Your task to perform on an android device: Go to display settings Image 0: 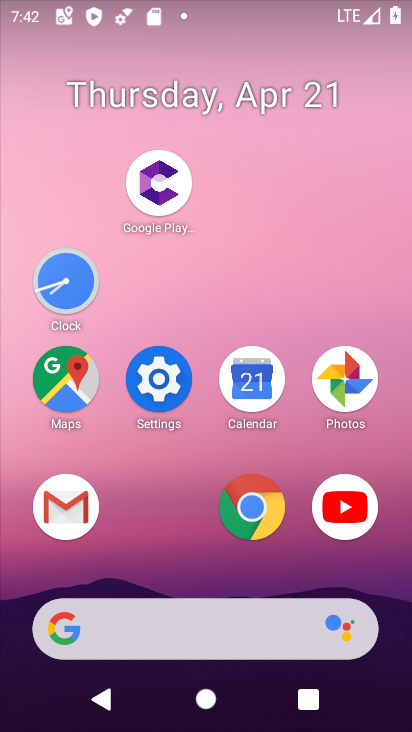
Step 0: click (150, 373)
Your task to perform on an android device: Go to display settings Image 1: 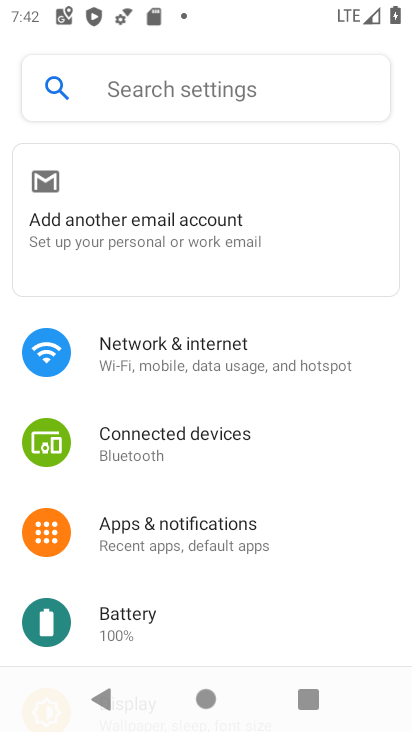
Step 1: drag from (300, 560) to (306, 230)
Your task to perform on an android device: Go to display settings Image 2: 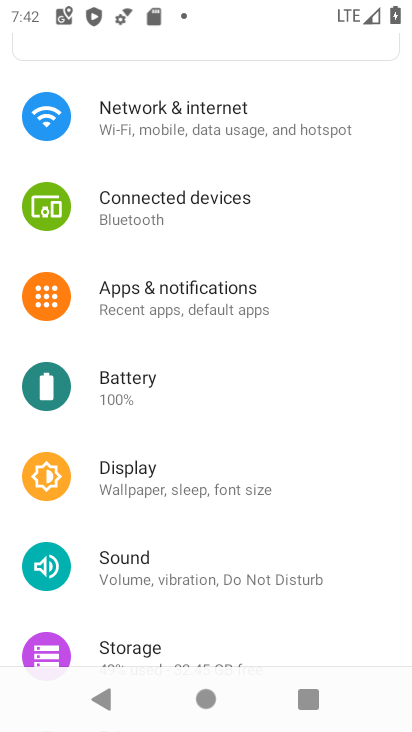
Step 2: click (110, 474)
Your task to perform on an android device: Go to display settings Image 3: 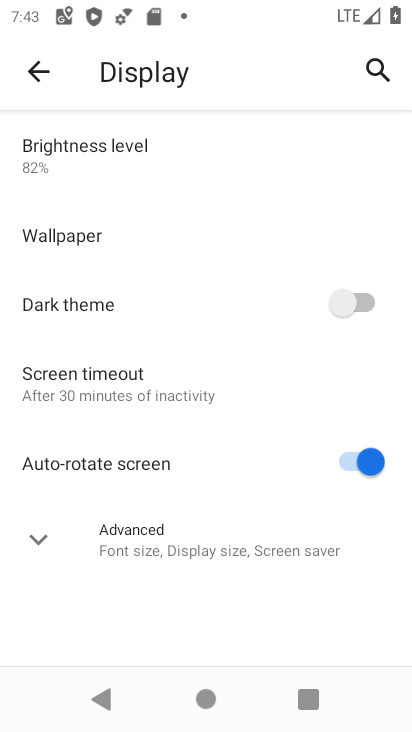
Step 3: task complete